Your task to perform on an android device: Open internet settings Image 0: 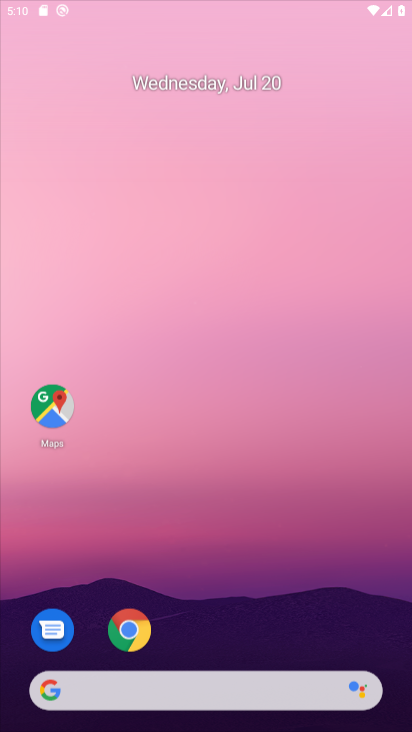
Step 0: press home button
Your task to perform on an android device: Open internet settings Image 1: 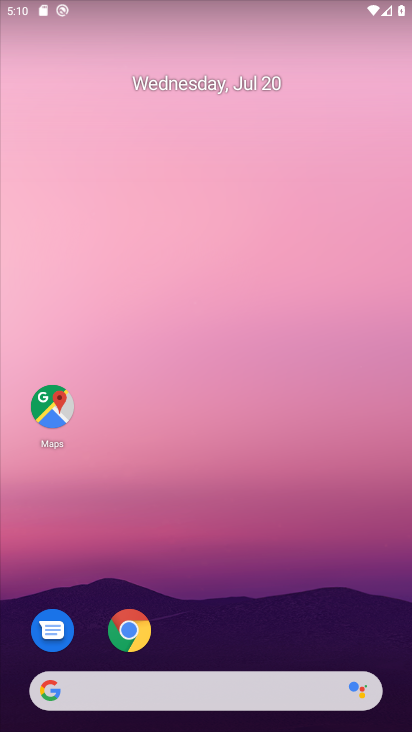
Step 1: drag from (249, 545) to (316, 32)
Your task to perform on an android device: Open internet settings Image 2: 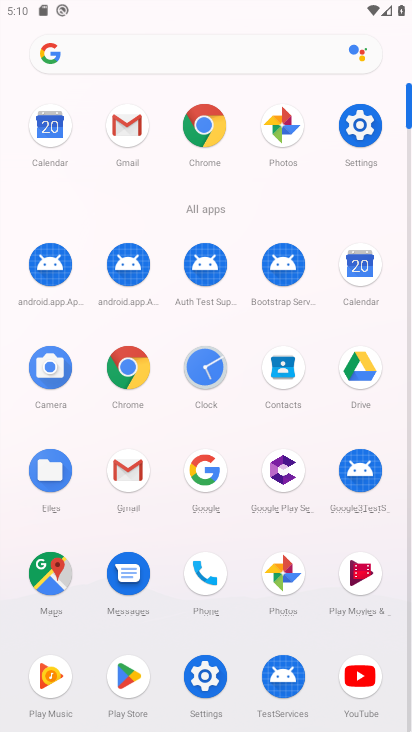
Step 2: click (357, 135)
Your task to perform on an android device: Open internet settings Image 3: 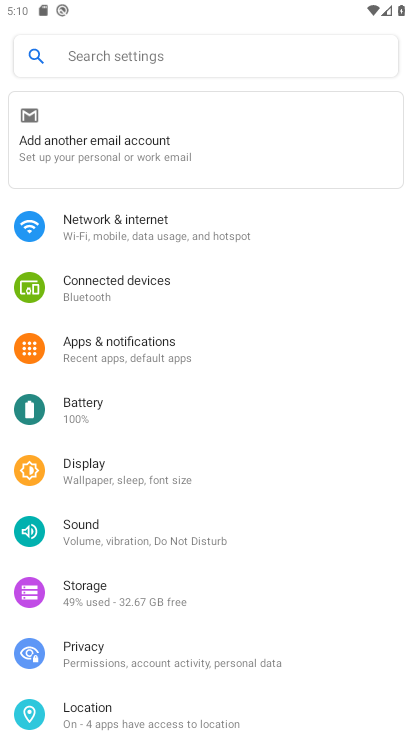
Step 3: click (97, 232)
Your task to perform on an android device: Open internet settings Image 4: 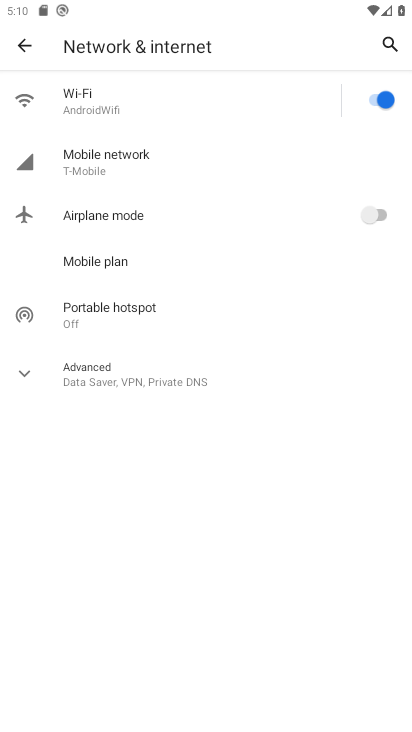
Step 4: task complete